Your task to perform on an android device: Search for Italian restaurants on Maps Image 0: 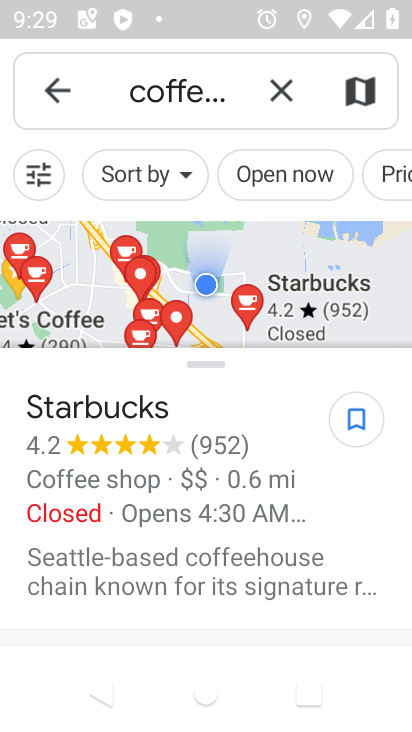
Step 0: press home button
Your task to perform on an android device: Search for Italian restaurants on Maps Image 1: 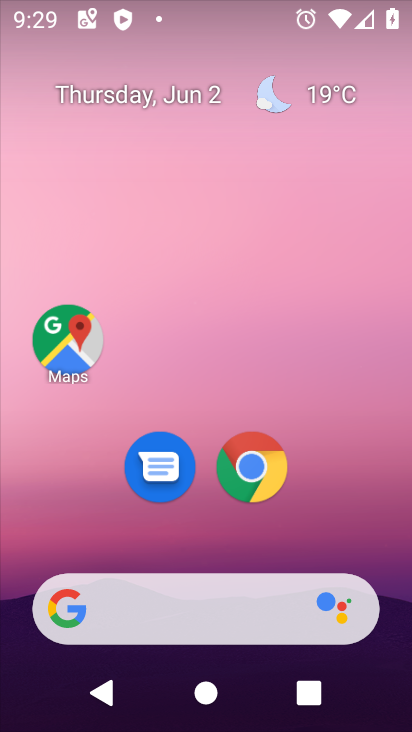
Step 1: drag from (235, 526) to (231, 136)
Your task to perform on an android device: Search for Italian restaurants on Maps Image 2: 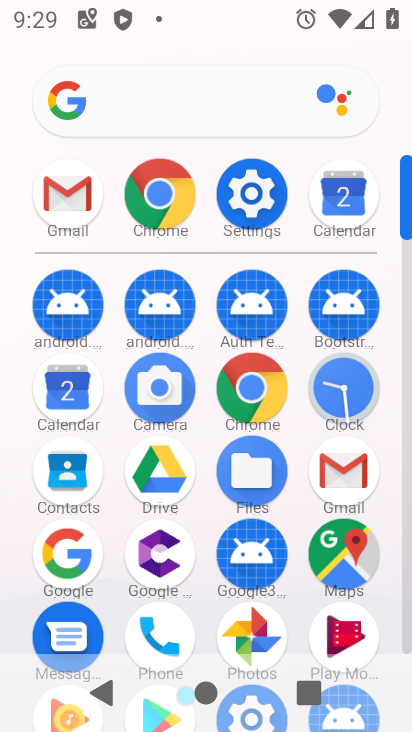
Step 2: click (348, 579)
Your task to perform on an android device: Search for Italian restaurants on Maps Image 3: 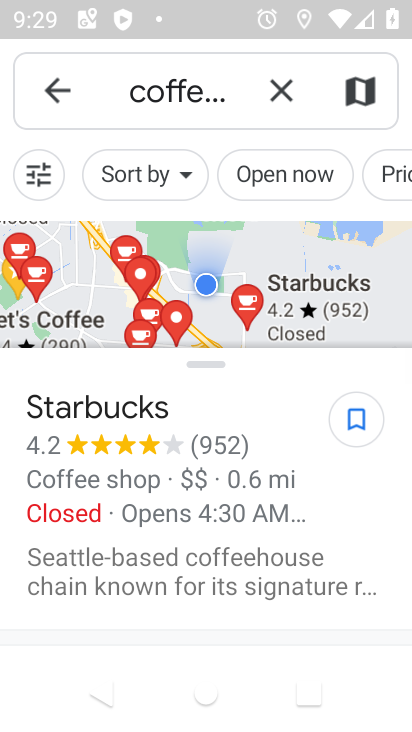
Step 3: click (283, 100)
Your task to perform on an android device: Search for Italian restaurants on Maps Image 4: 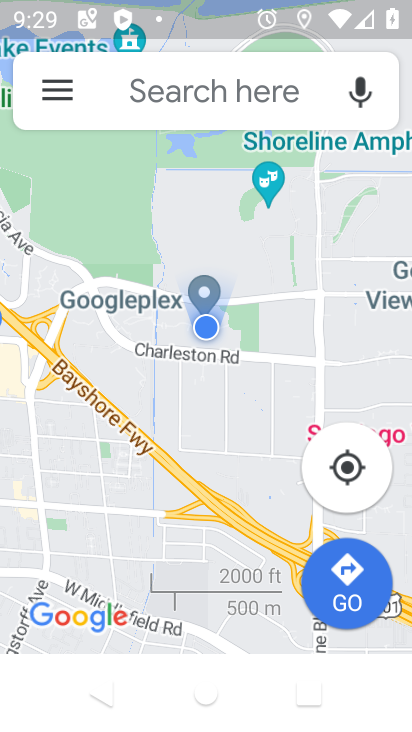
Step 4: click (208, 88)
Your task to perform on an android device: Search for Italian restaurants on Maps Image 5: 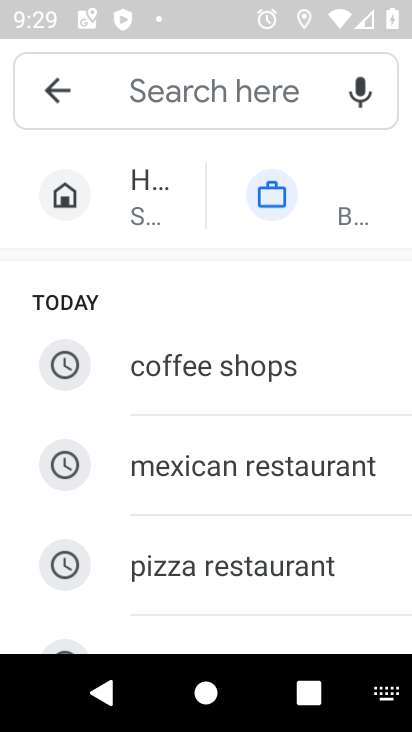
Step 5: drag from (198, 585) to (181, 145)
Your task to perform on an android device: Search for Italian restaurants on Maps Image 6: 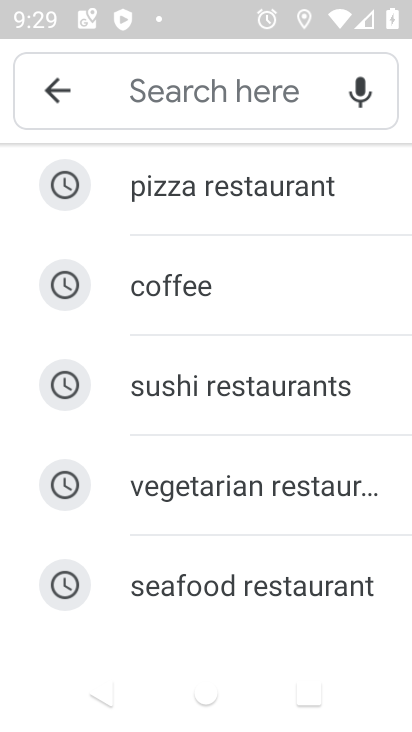
Step 6: drag from (255, 580) to (256, 184)
Your task to perform on an android device: Search for Italian restaurants on Maps Image 7: 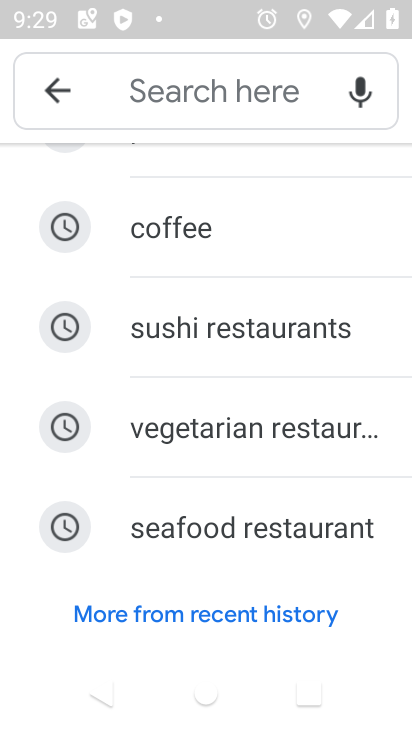
Step 7: click (229, 79)
Your task to perform on an android device: Search for Italian restaurants on Maps Image 8: 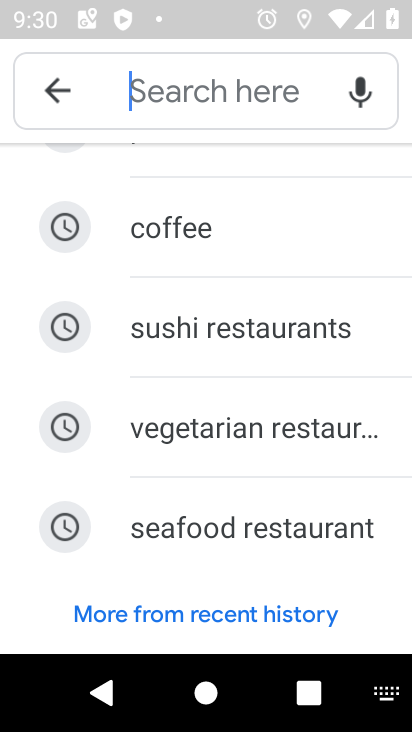
Step 8: type "italian restaurants"
Your task to perform on an android device: Search for Italian restaurants on Maps Image 9: 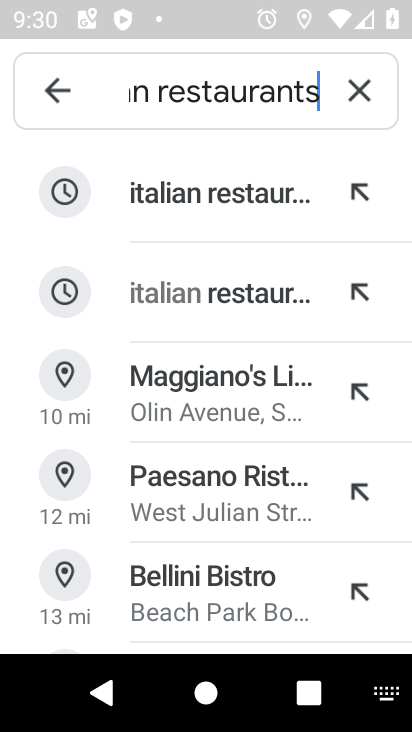
Step 9: click (238, 191)
Your task to perform on an android device: Search for Italian restaurants on Maps Image 10: 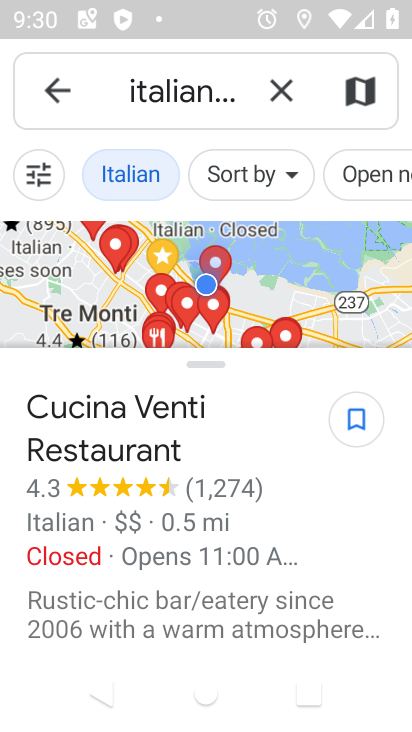
Step 10: task complete